Your task to perform on an android device: empty trash in the gmail app Image 0: 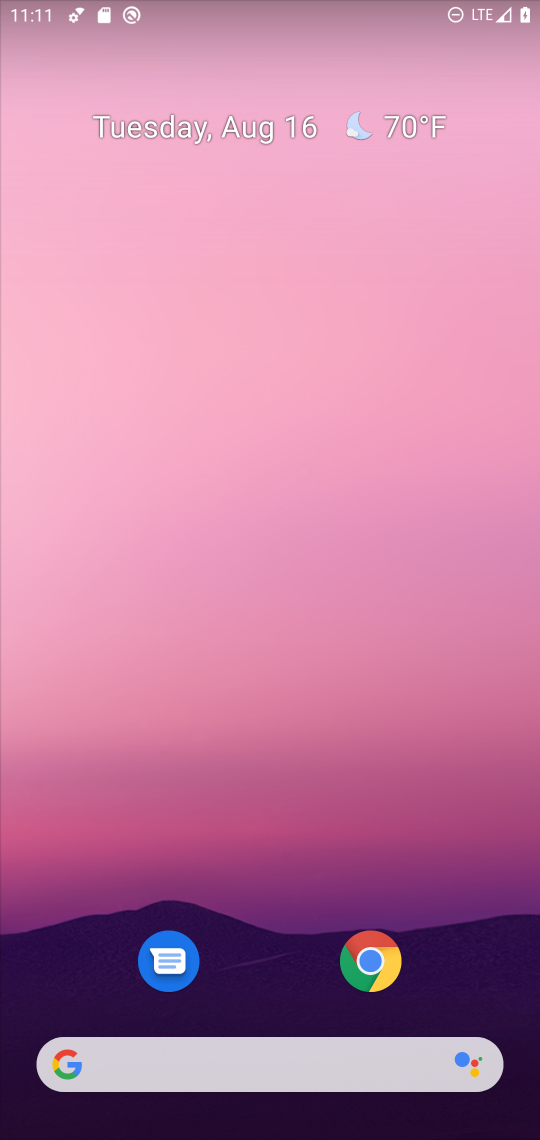
Step 0: drag from (280, 1025) to (427, 28)
Your task to perform on an android device: empty trash in the gmail app Image 1: 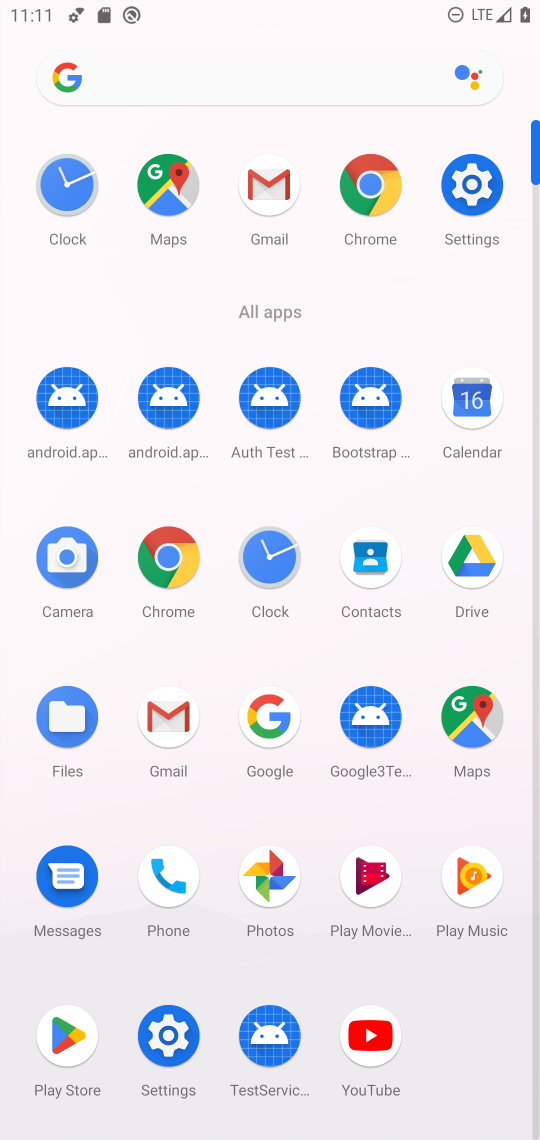
Step 1: click (189, 712)
Your task to perform on an android device: empty trash in the gmail app Image 2: 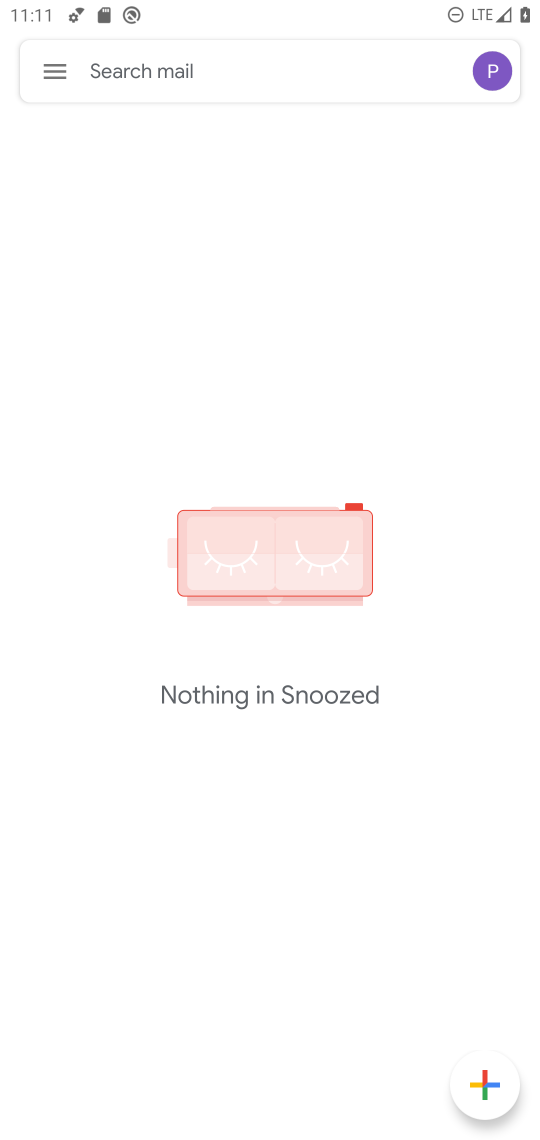
Step 2: click (50, 60)
Your task to perform on an android device: empty trash in the gmail app Image 3: 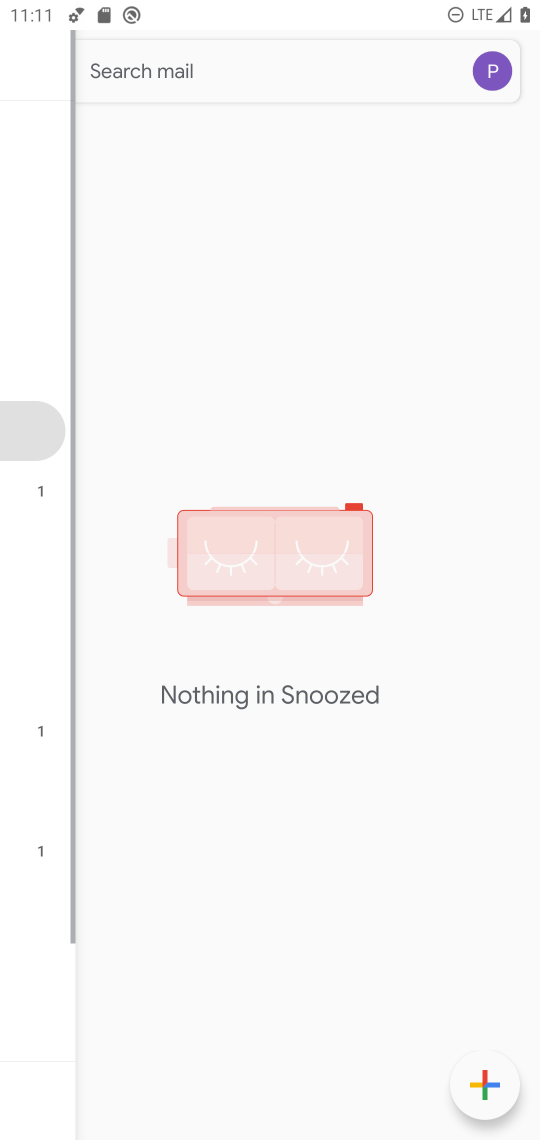
Step 3: click (50, 60)
Your task to perform on an android device: empty trash in the gmail app Image 4: 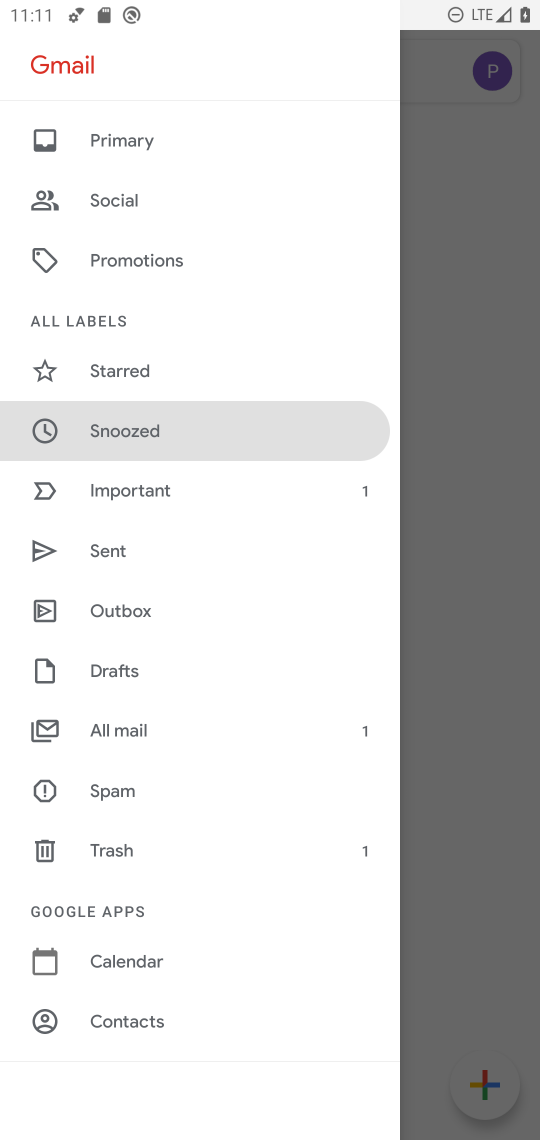
Step 4: click (133, 870)
Your task to perform on an android device: empty trash in the gmail app Image 5: 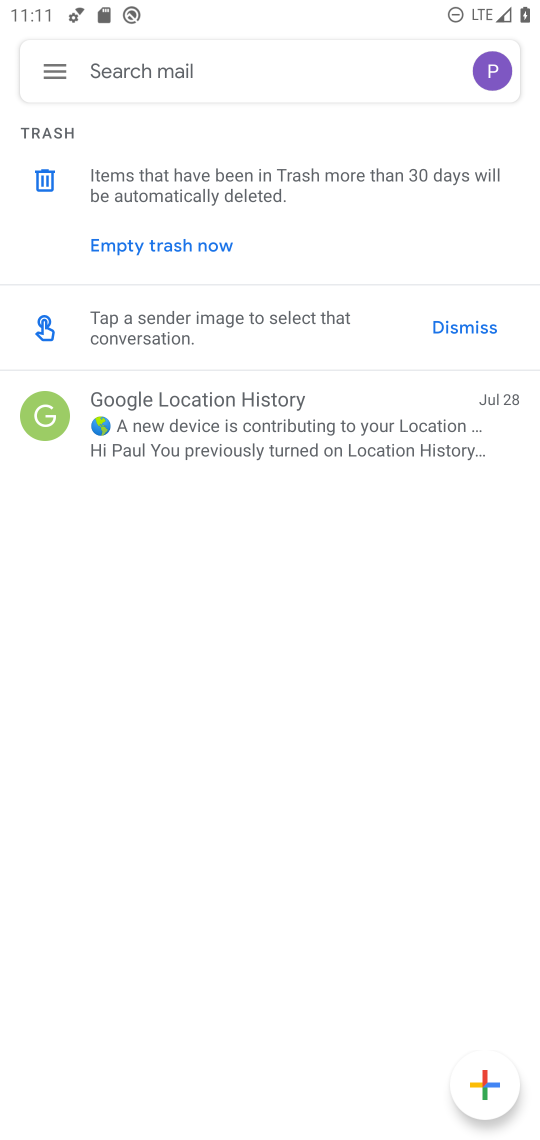
Step 5: click (165, 249)
Your task to perform on an android device: empty trash in the gmail app Image 6: 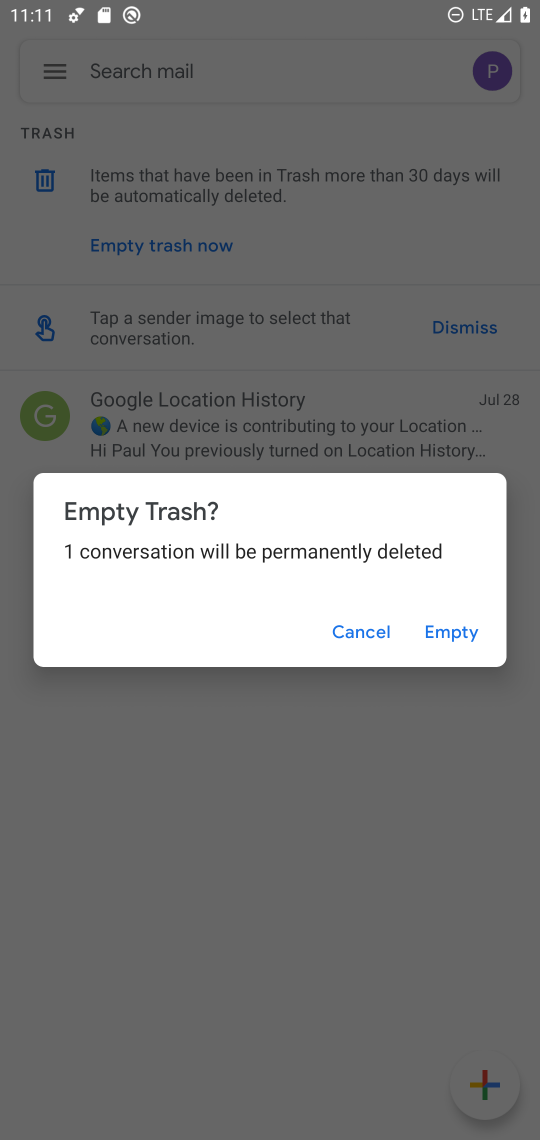
Step 6: click (445, 619)
Your task to perform on an android device: empty trash in the gmail app Image 7: 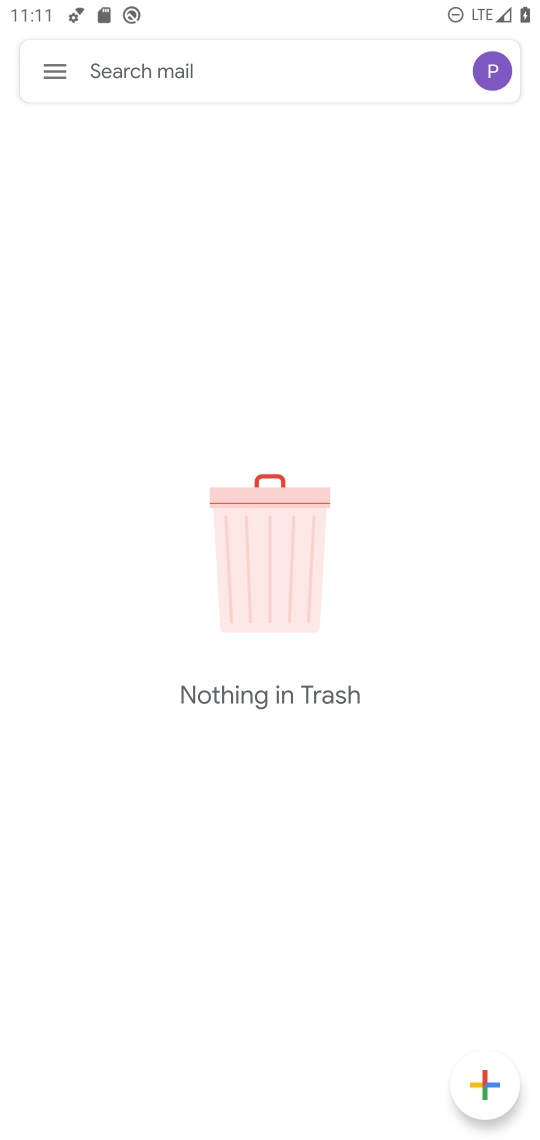
Step 7: task complete